Your task to perform on an android device: open app "Pluto TV - Live TV and Movies" (install if not already installed), go to login, and select forgot password Image 0: 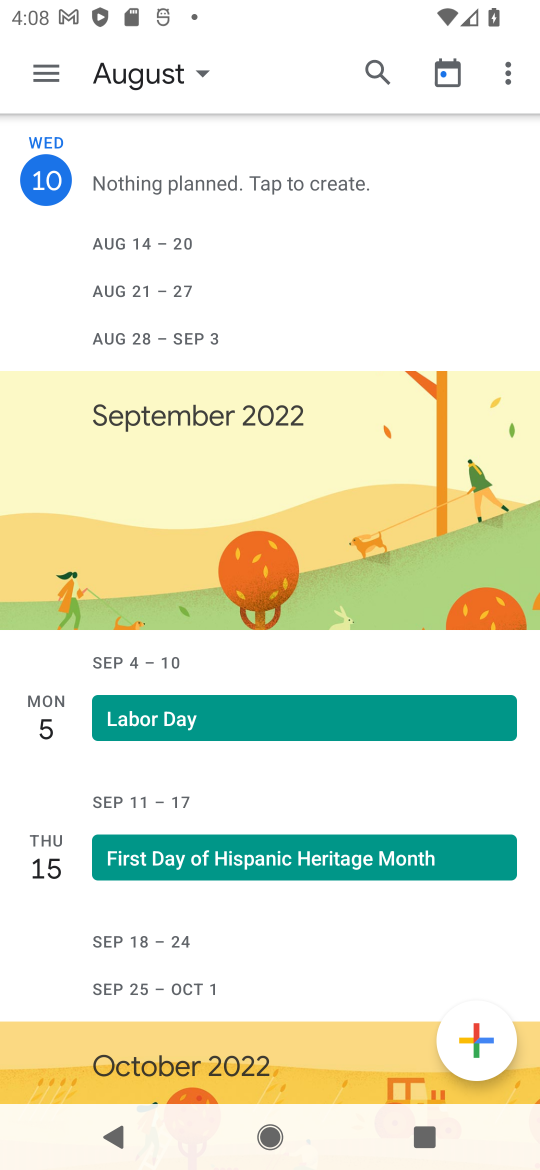
Step 0: press back button
Your task to perform on an android device: open app "Pluto TV - Live TV and Movies" (install if not already installed), go to login, and select forgot password Image 1: 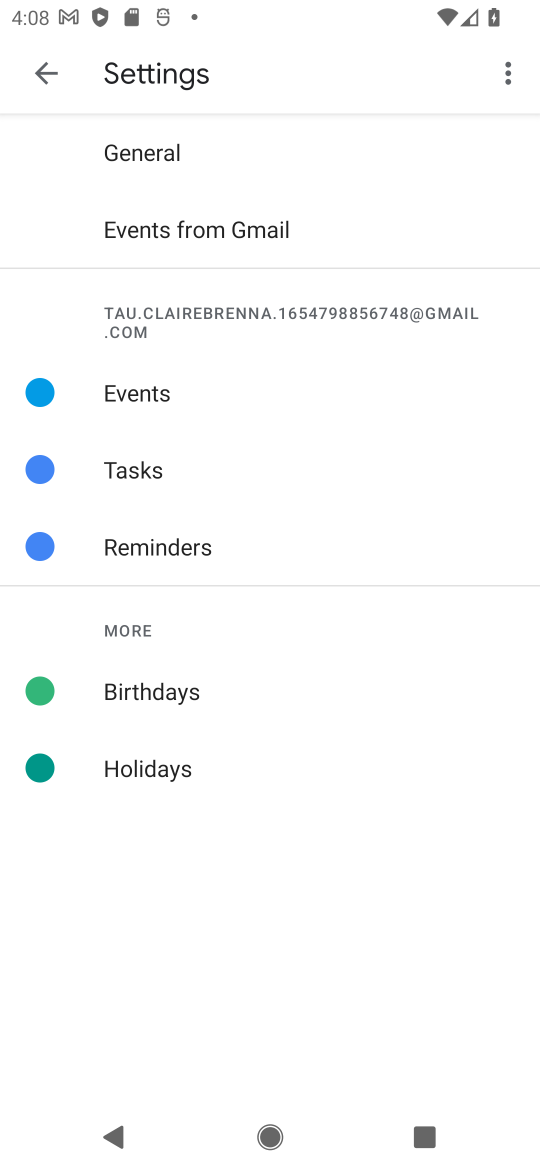
Step 1: press back button
Your task to perform on an android device: open app "Pluto TV - Live TV and Movies" (install if not already installed), go to login, and select forgot password Image 2: 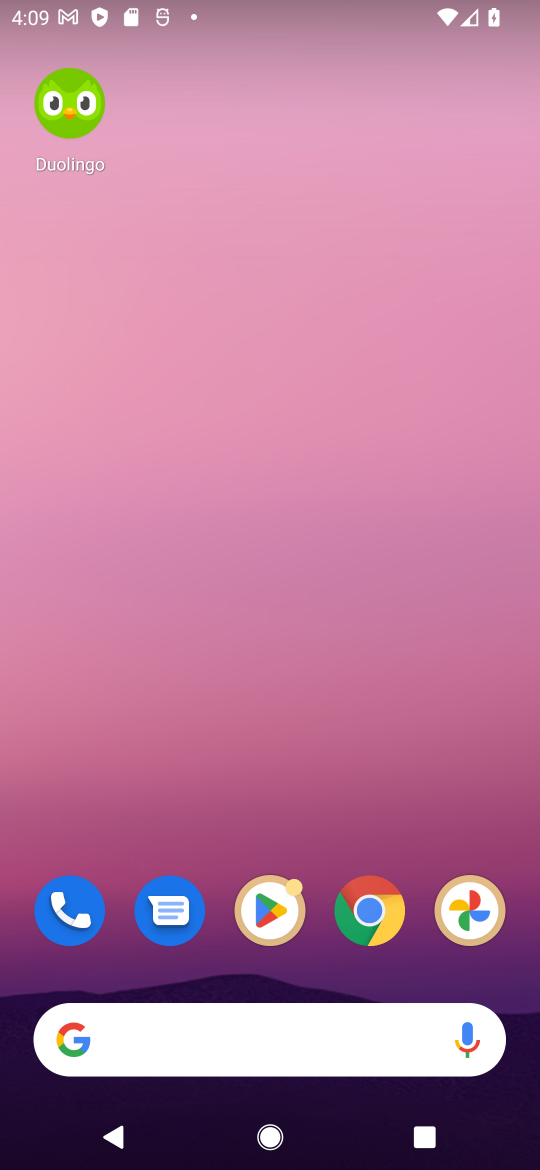
Step 2: click (259, 892)
Your task to perform on an android device: open app "Pluto TV - Live TV and Movies" (install if not already installed), go to login, and select forgot password Image 3: 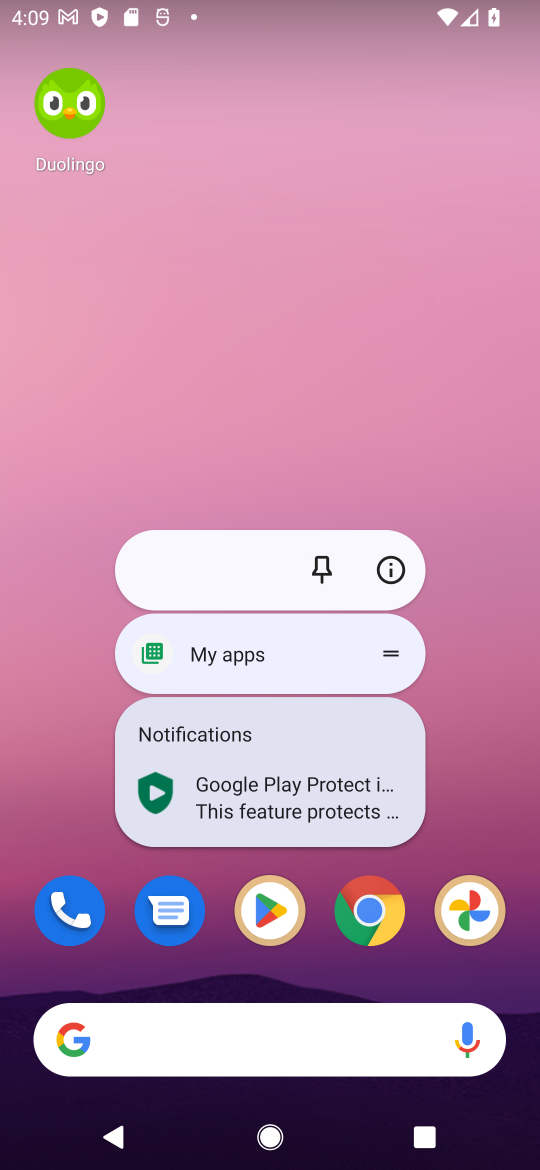
Step 3: click (273, 916)
Your task to perform on an android device: open app "Pluto TV - Live TV and Movies" (install if not already installed), go to login, and select forgot password Image 4: 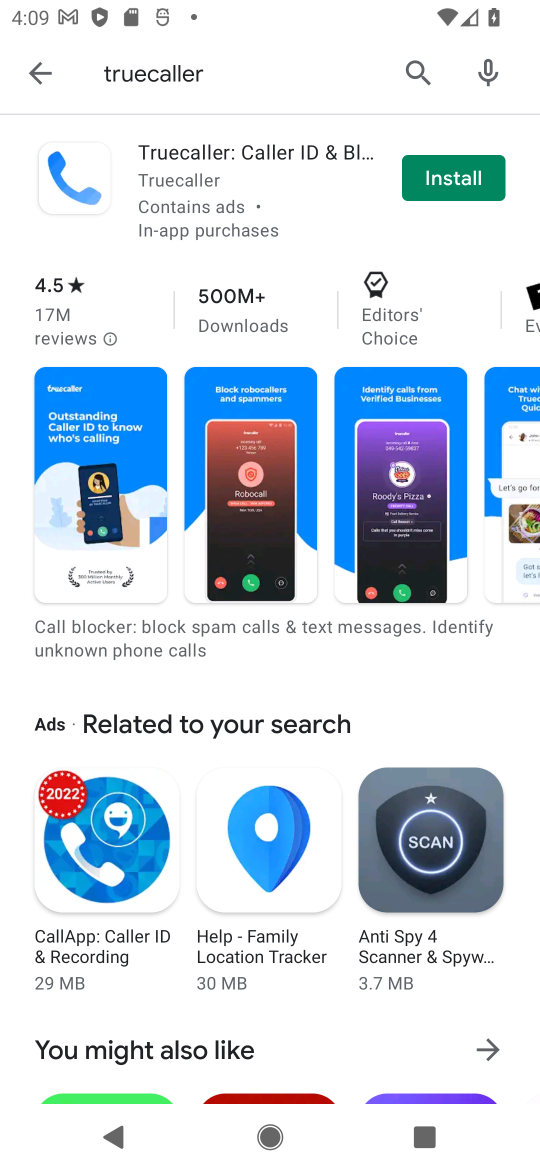
Step 4: click (411, 74)
Your task to perform on an android device: open app "Pluto TV - Live TV and Movies" (install if not already installed), go to login, and select forgot password Image 5: 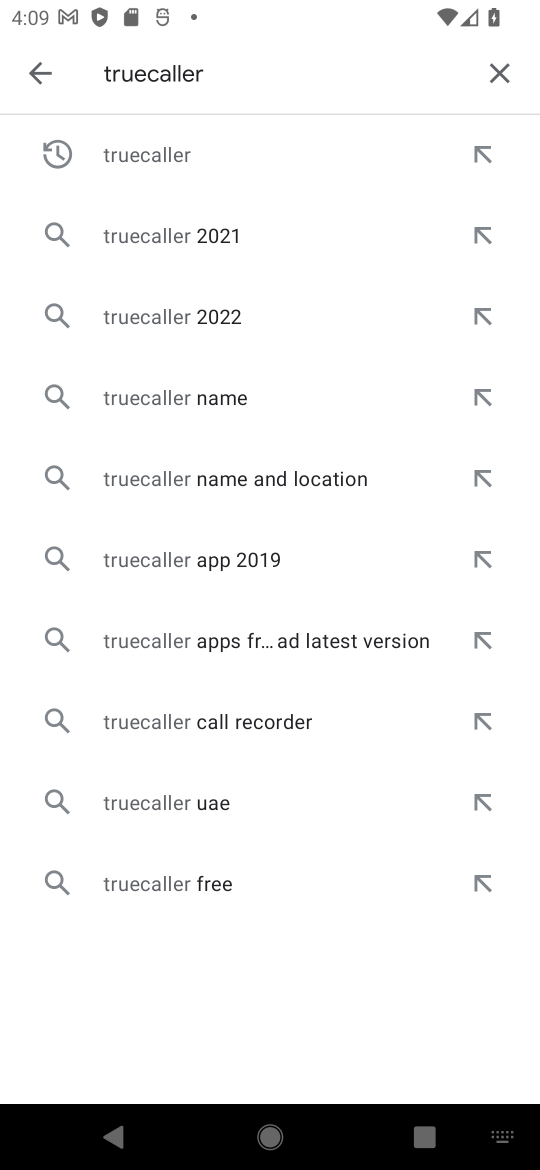
Step 5: click (499, 72)
Your task to perform on an android device: open app "Pluto TV - Live TV and Movies" (install if not already installed), go to login, and select forgot password Image 6: 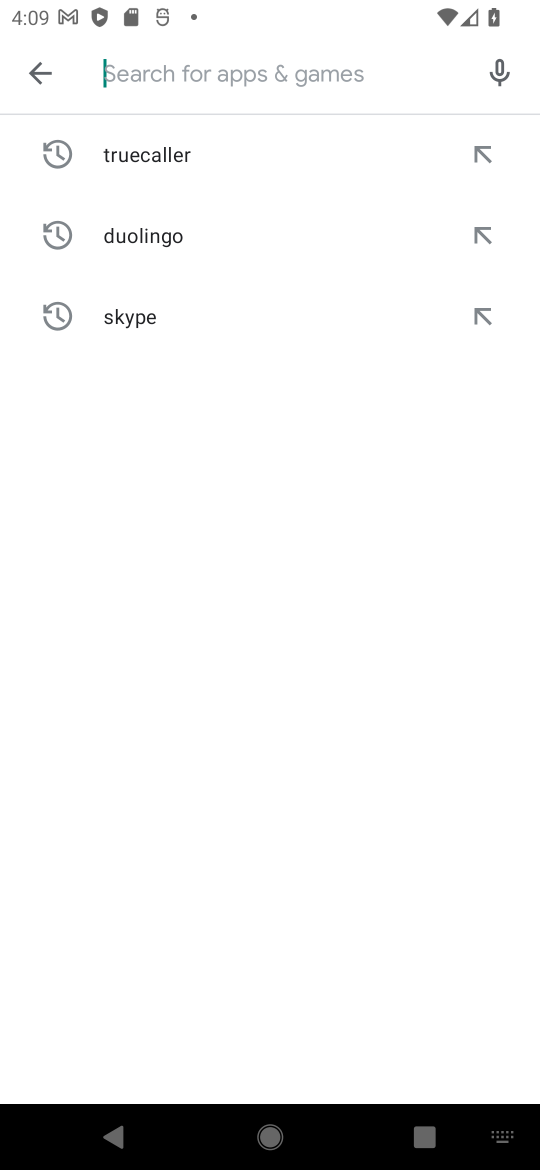
Step 6: click (236, 65)
Your task to perform on an android device: open app "Pluto TV - Live TV and Movies" (install if not already installed), go to login, and select forgot password Image 7: 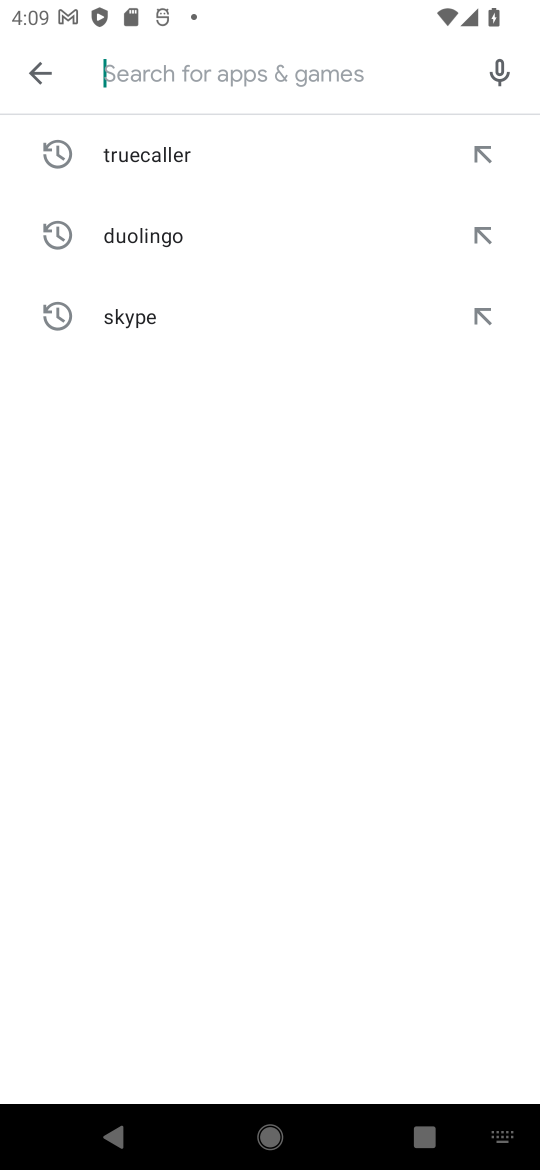
Step 7: type "pluto tv"
Your task to perform on an android device: open app "Pluto TV - Live TV and Movies" (install if not already installed), go to login, and select forgot password Image 8: 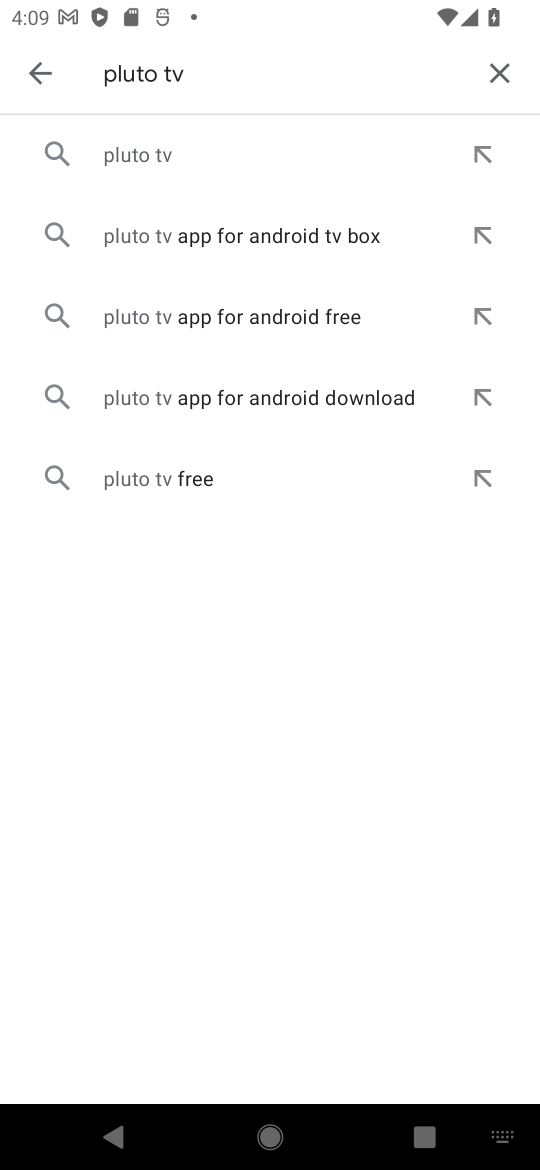
Step 8: click (142, 143)
Your task to perform on an android device: open app "Pluto TV - Live TV and Movies" (install if not already installed), go to login, and select forgot password Image 9: 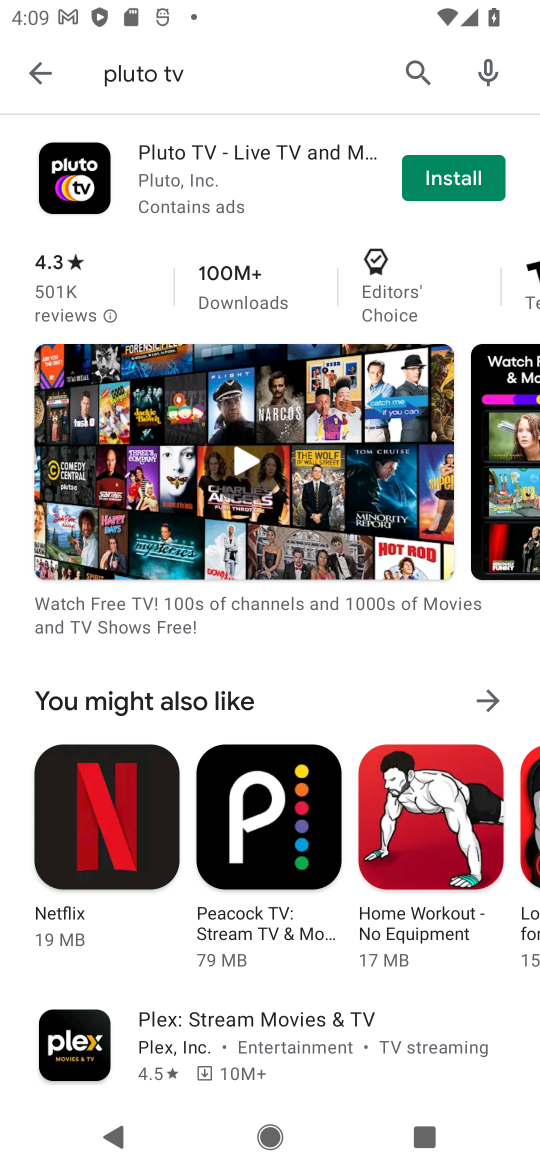
Step 9: click (446, 175)
Your task to perform on an android device: open app "Pluto TV - Live TV and Movies" (install if not already installed), go to login, and select forgot password Image 10: 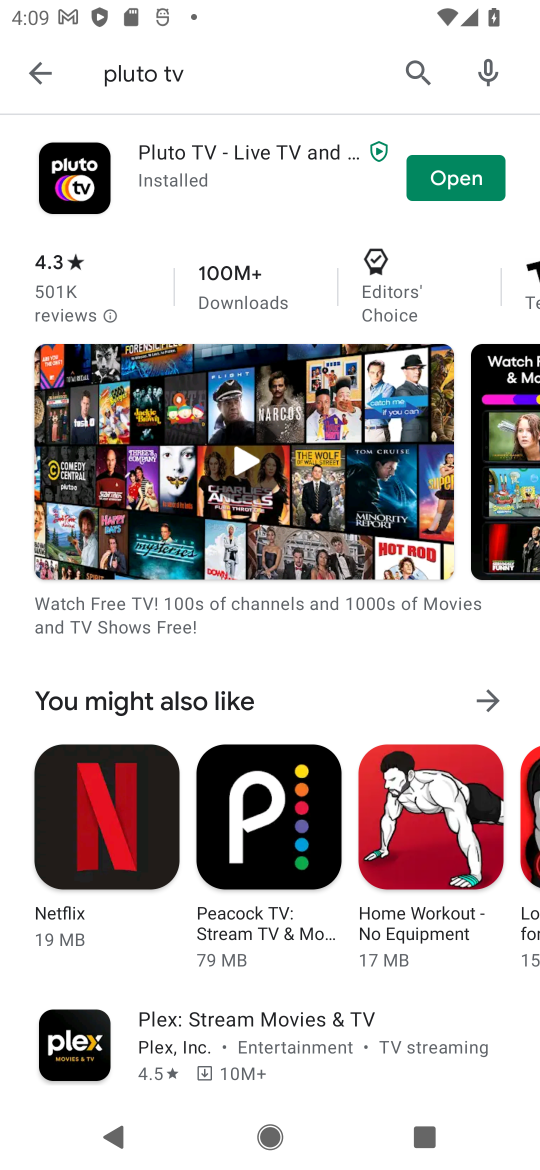
Step 10: click (448, 177)
Your task to perform on an android device: open app "Pluto TV - Live TV and Movies" (install if not already installed), go to login, and select forgot password Image 11: 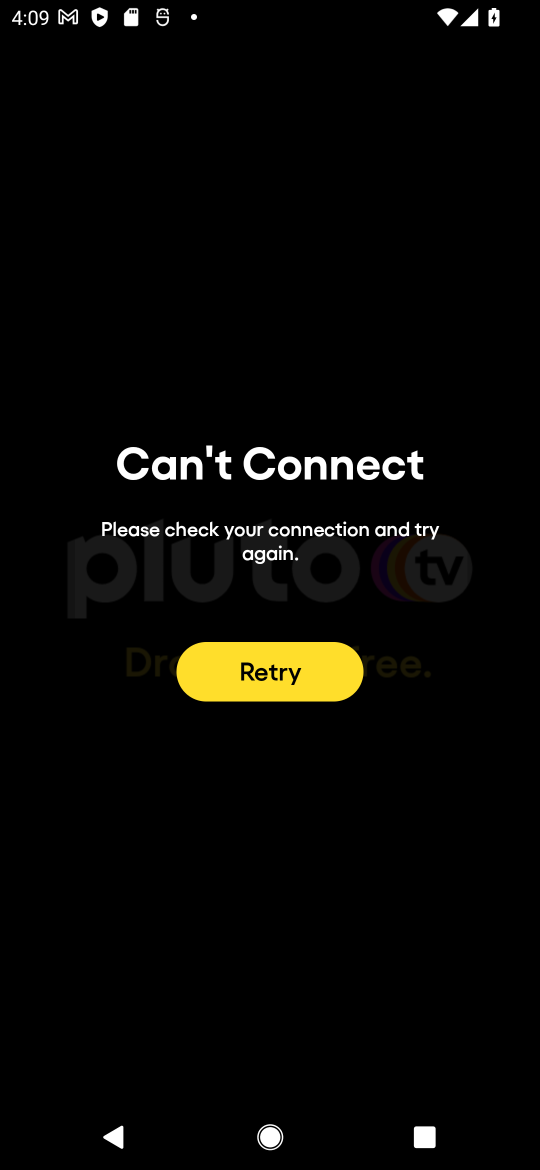
Step 11: click (245, 667)
Your task to perform on an android device: open app "Pluto TV - Live TV and Movies" (install if not already installed), go to login, and select forgot password Image 12: 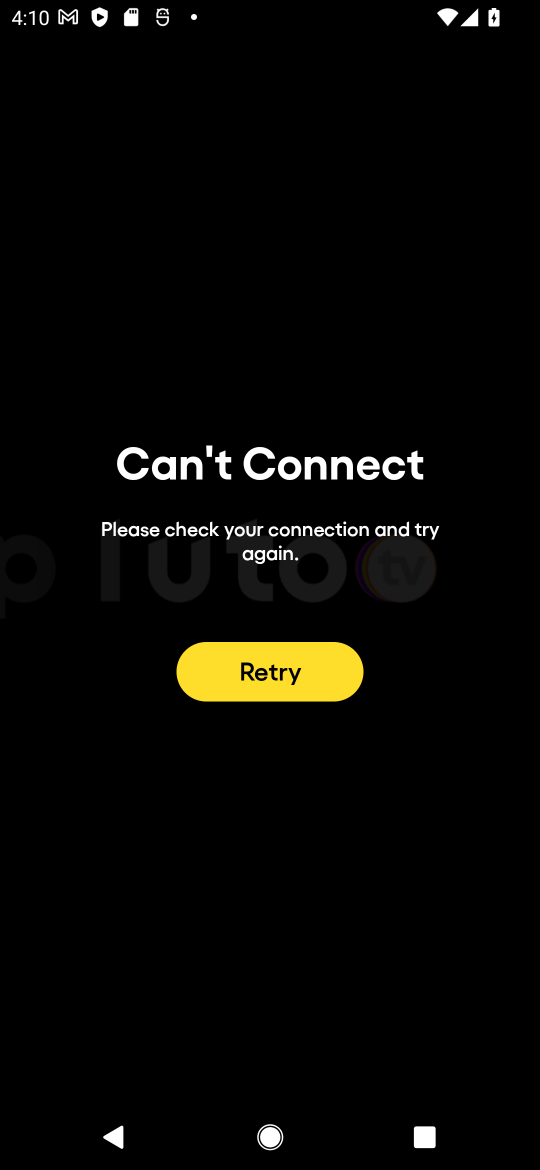
Step 12: task complete